Your task to perform on an android device: Go to sound settings Image 0: 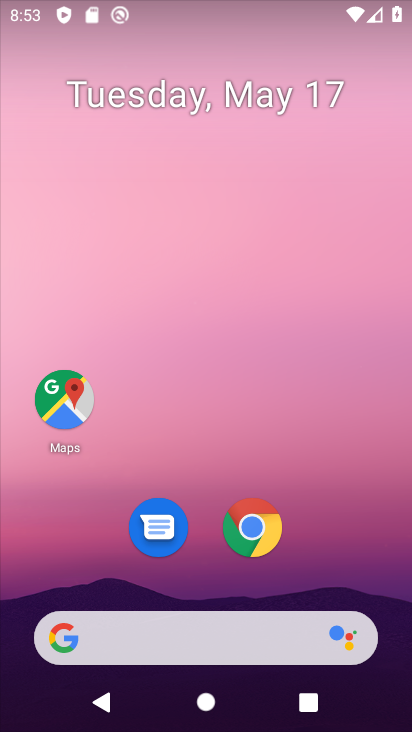
Step 0: drag from (290, 532) to (291, 142)
Your task to perform on an android device: Go to sound settings Image 1: 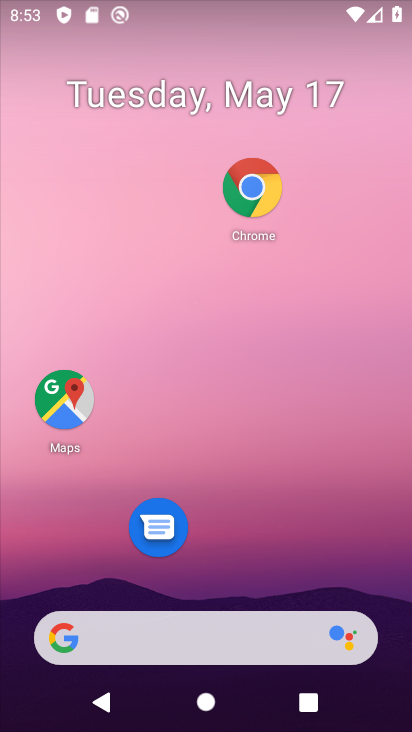
Step 1: drag from (299, 573) to (335, 92)
Your task to perform on an android device: Go to sound settings Image 2: 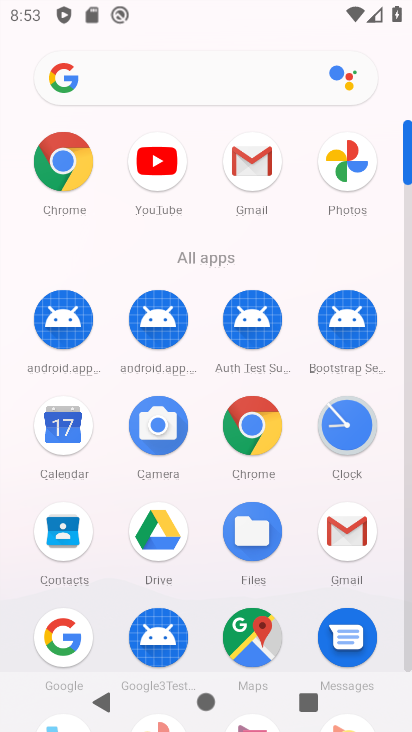
Step 2: click (411, 648)
Your task to perform on an android device: Go to sound settings Image 3: 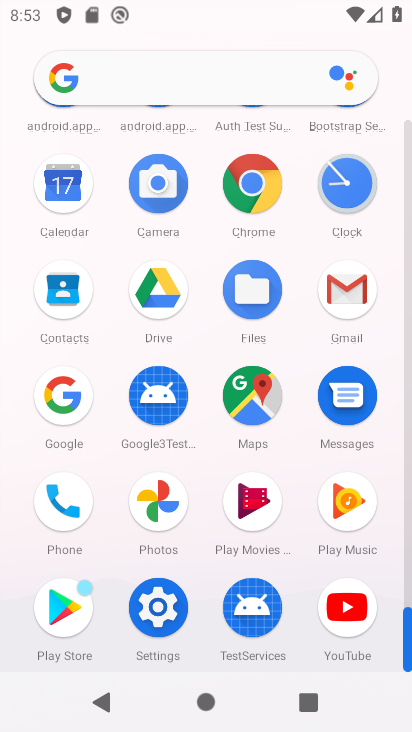
Step 3: click (150, 625)
Your task to perform on an android device: Go to sound settings Image 4: 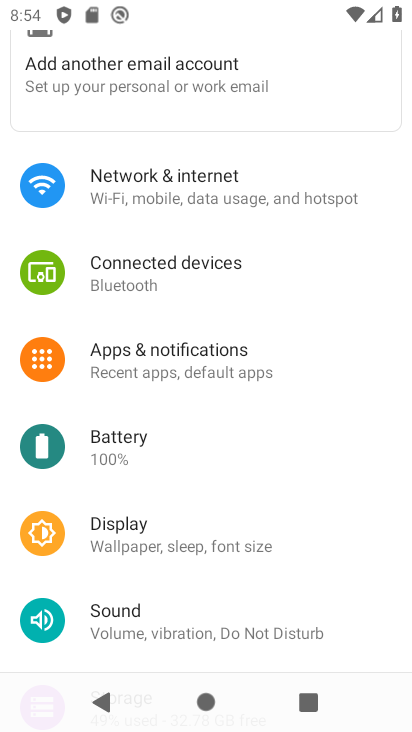
Step 4: click (188, 594)
Your task to perform on an android device: Go to sound settings Image 5: 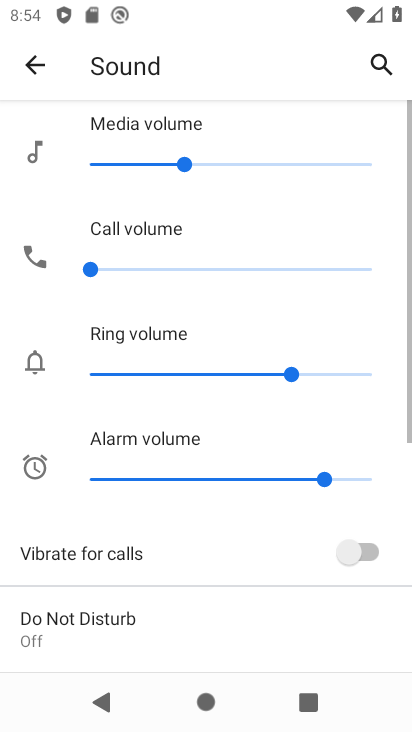
Step 5: task complete